Your task to perform on an android device: check google app version Image 0: 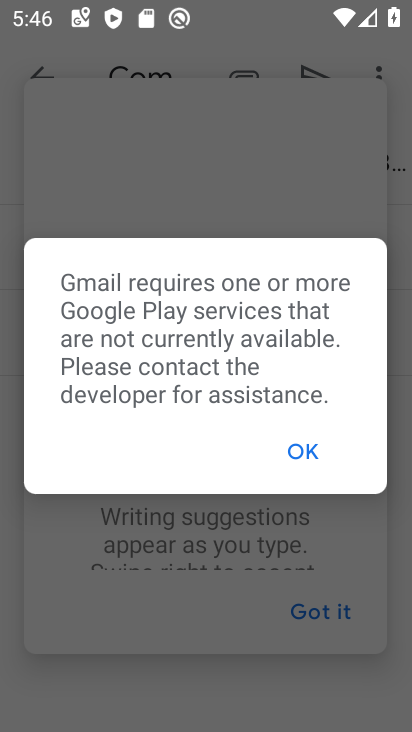
Step 0: press home button
Your task to perform on an android device: check google app version Image 1: 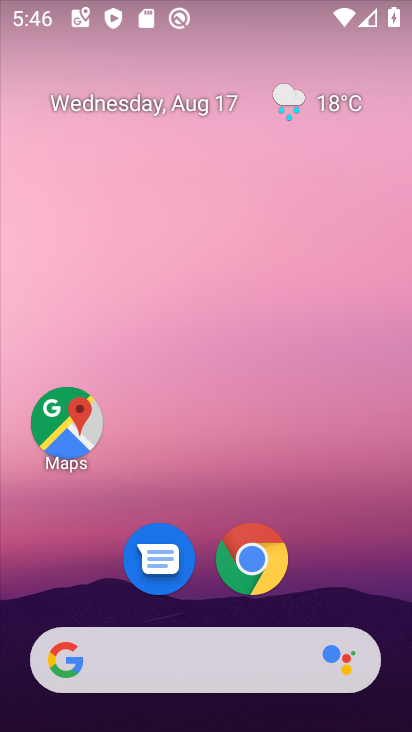
Step 1: drag from (194, 659) to (0, 263)
Your task to perform on an android device: check google app version Image 2: 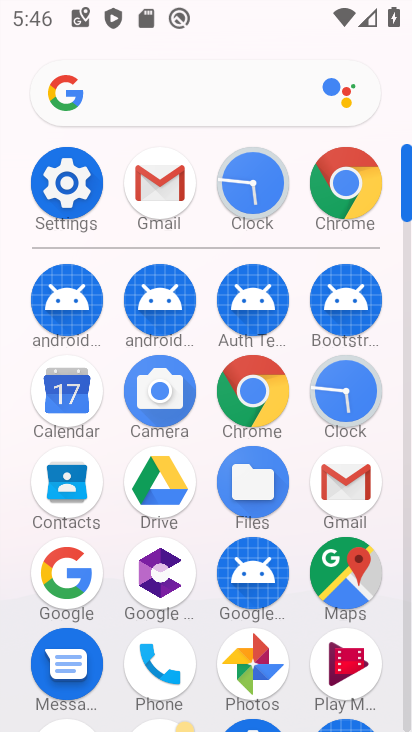
Step 2: click (54, 573)
Your task to perform on an android device: check google app version Image 3: 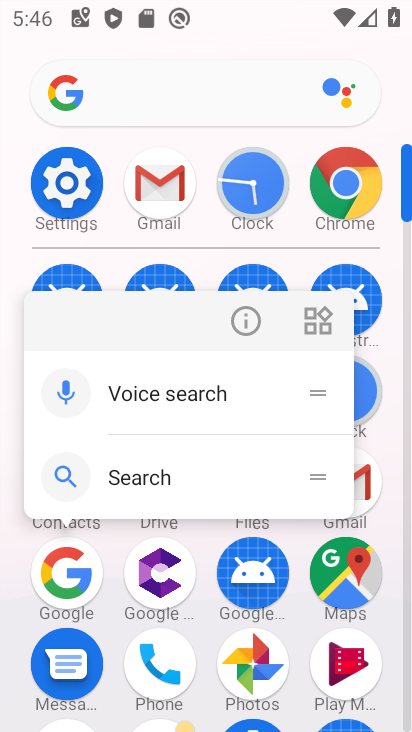
Step 3: click (237, 327)
Your task to perform on an android device: check google app version Image 4: 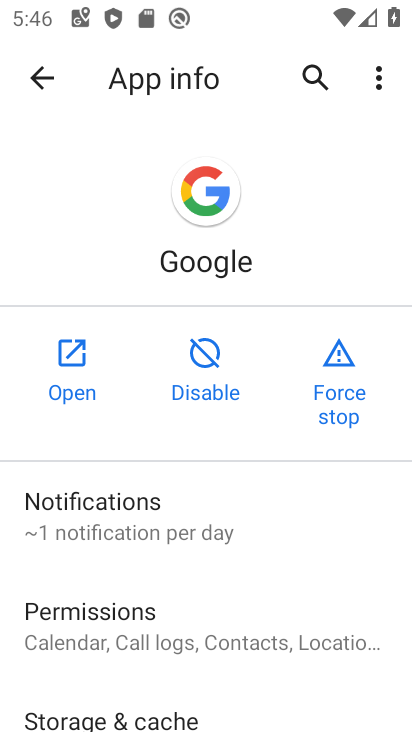
Step 4: drag from (173, 640) to (131, 10)
Your task to perform on an android device: check google app version Image 5: 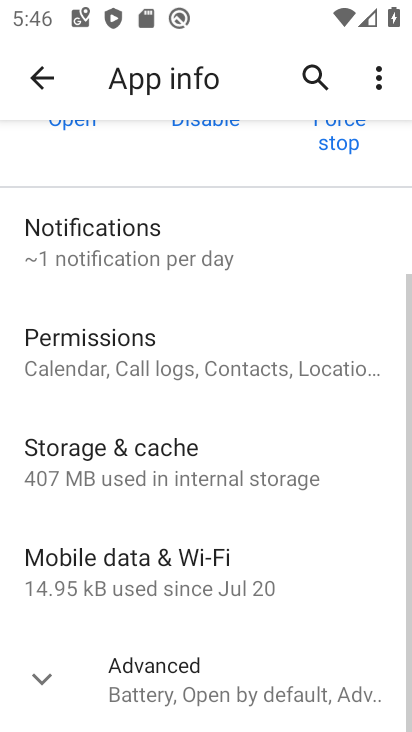
Step 5: click (110, 662)
Your task to perform on an android device: check google app version Image 6: 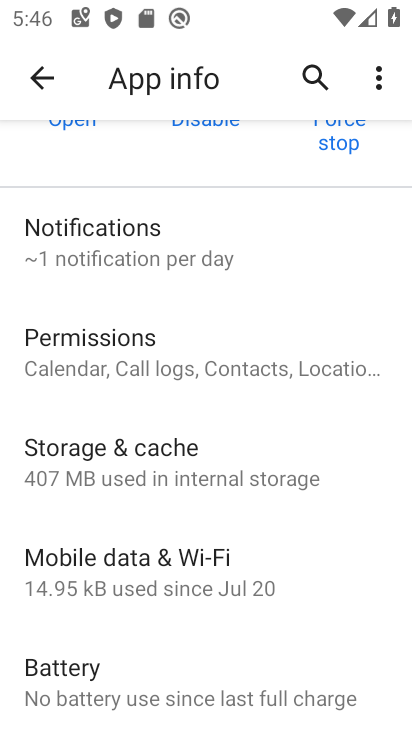
Step 6: task complete